Your task to perform on an android device: open wifi settings Image 0: 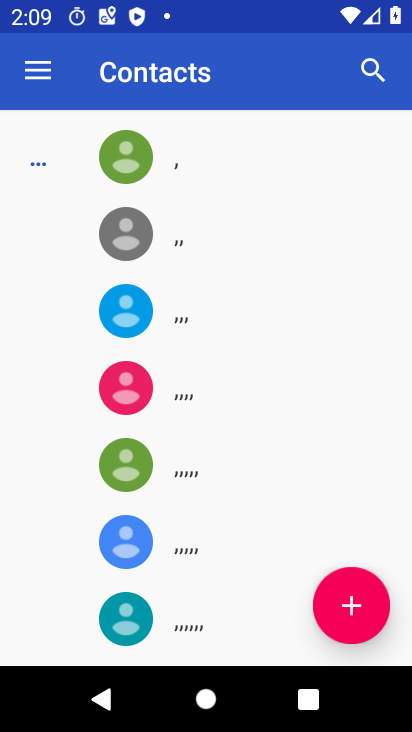
Step 0: press home button
Your task to perform on an android device: open wifi settings Image 1: 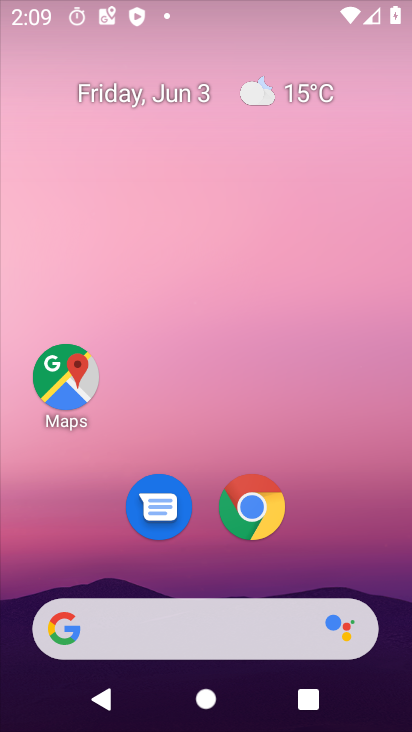
Step 1: drag from (394, 650) to (289, 32)
Your task to perform on an android device: open wifi settings Image 2: 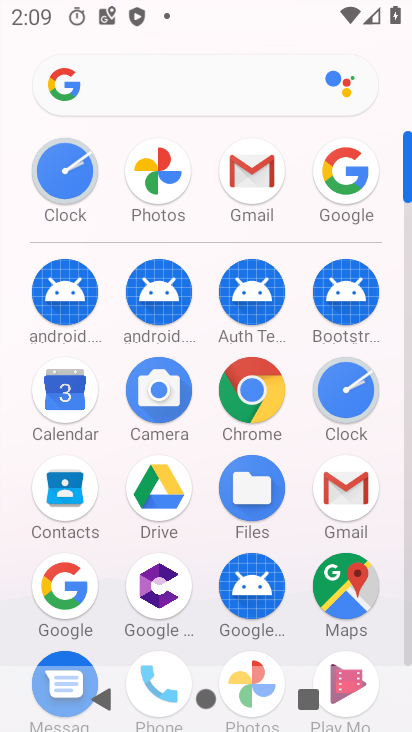
Step 2: drag from (200, 652) to (221, 140)
Your task to perform on an android device: open wifi settings Image 3: 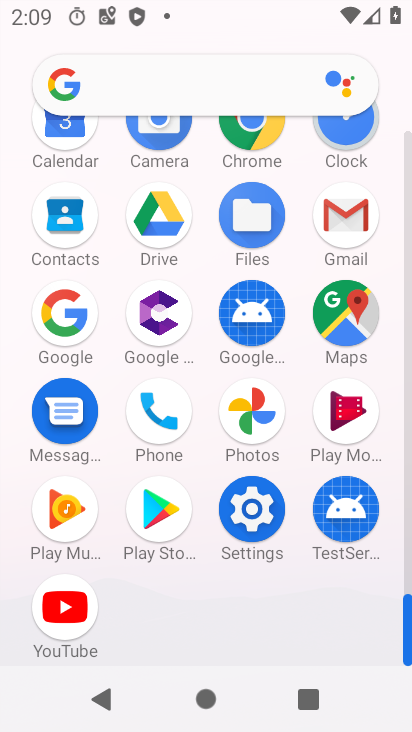
Step 3: click (263, 546)
Your task to perform on an android device: open wifi settings Image 4: 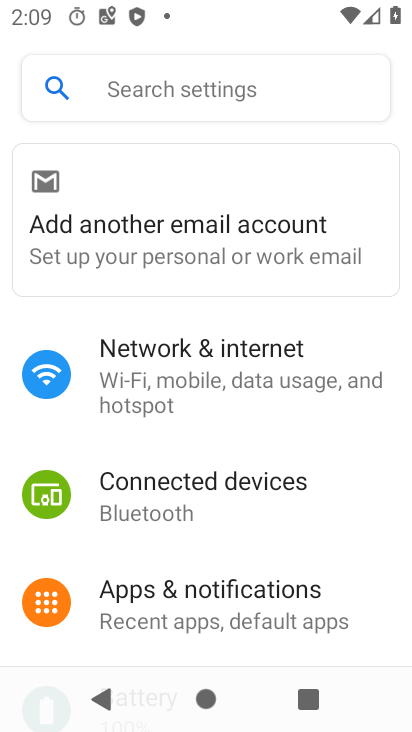
Step 4: click (223, 391)
Your task to perform on an android device: open wifi settings Image 5: 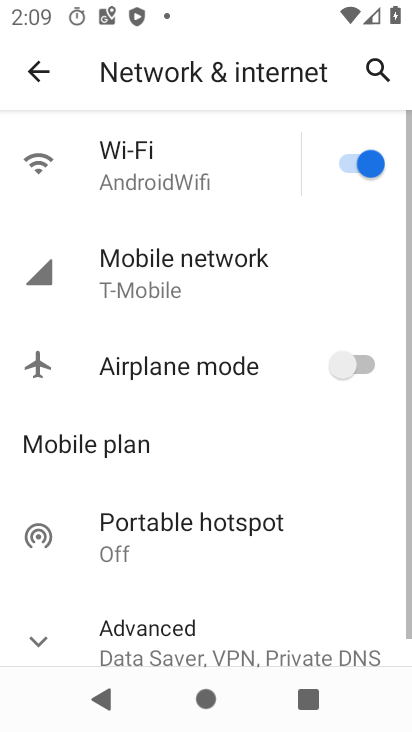
Step 5: click (168, 185)
Your task to perform on an android device: open wifi settings Image 6: 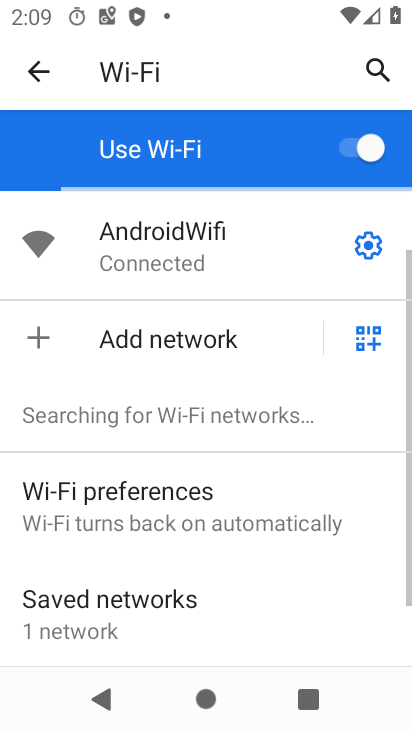
Step 6: task complete